Your task to perform on an android device: toggle location history Image 0: 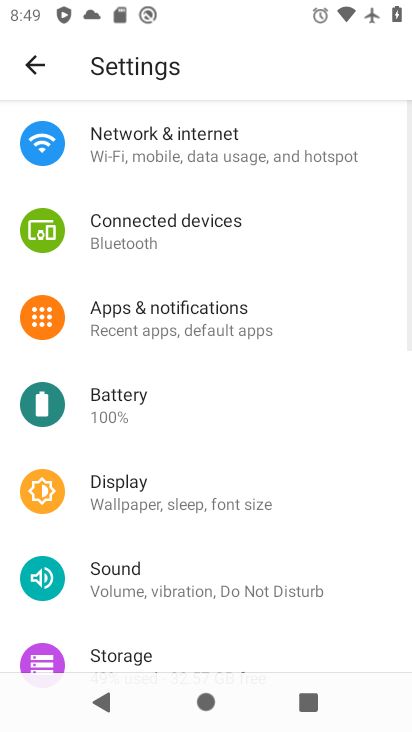
Step 0: press home button
Your task to perform on an android device: toggle location history Image 1: 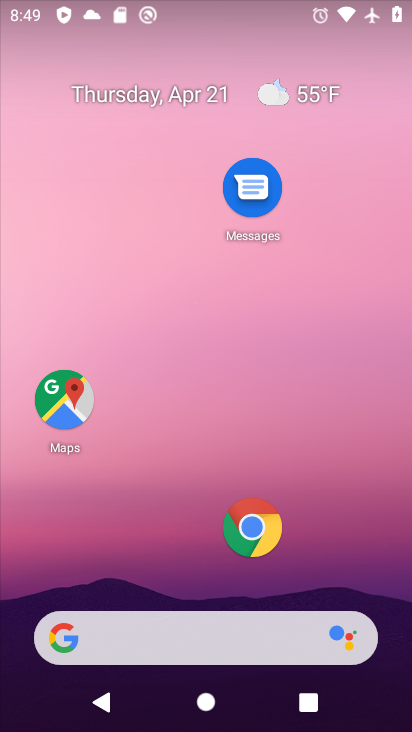
Step 1: drag from (159, 634) to (267, 26)
Your task to perform on an android device: toggle location history Image 2: 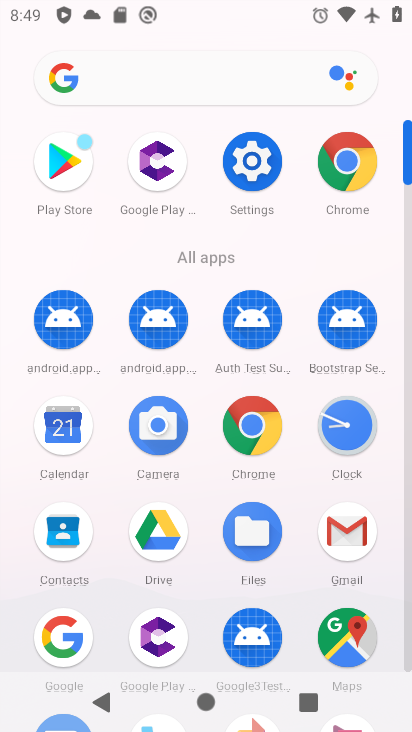
Step 2: click (253, 168)
Your task to perform on an android device: toggle location history Image 3: 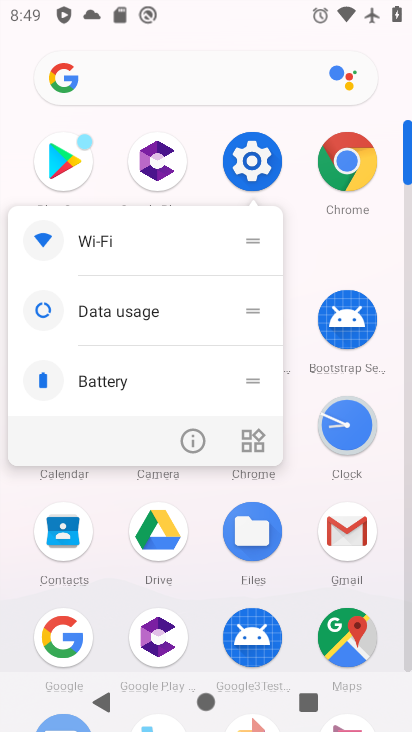
Step 3: click (252, 160)
Your task to perform on an android device: toggle location history Image 4: 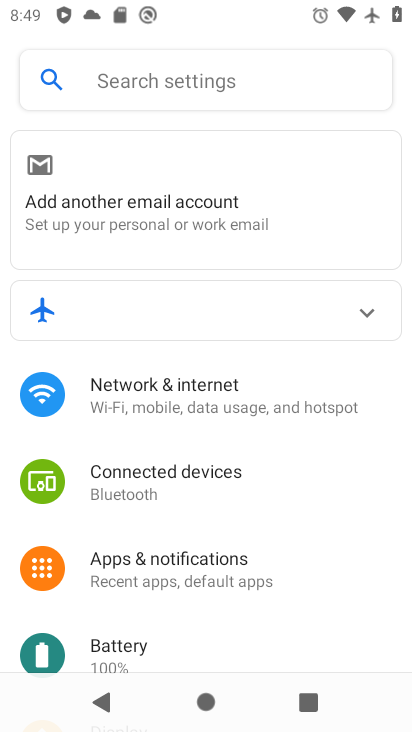
Step 4: drag from (211, 648) to (318, 121)
Your task to perform on an android device: toggle location history Image 5: 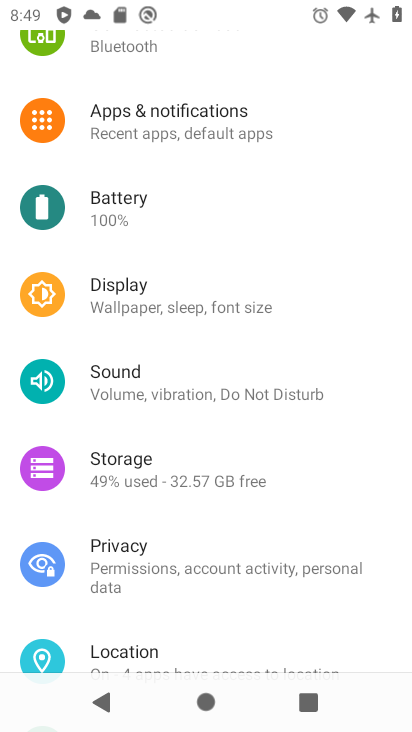
Step 5: drag from (165, 612) to (294, 74)
Your task to perform on an android device: toggle location history Image 6: 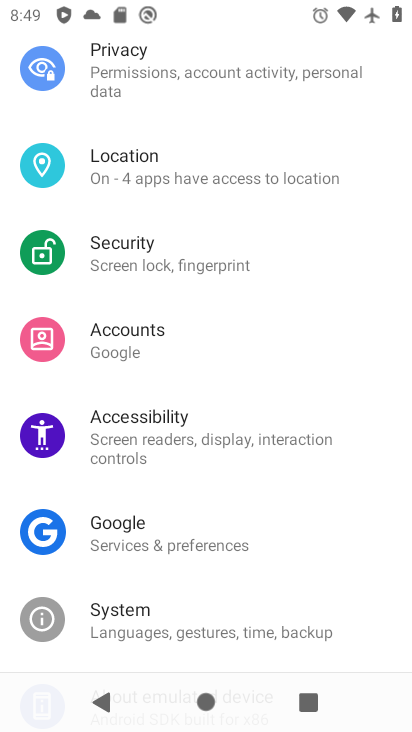
Step 6: click (138, 155)
Your task to perform on an android device: toggle location history Image 7: 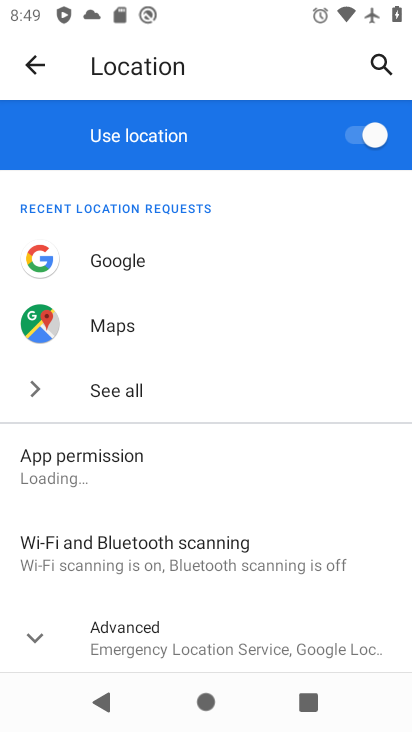
Step 7: drag from (192, 525) to (303, 151)
Your task to perform on an android device: toggle location history Image 8: 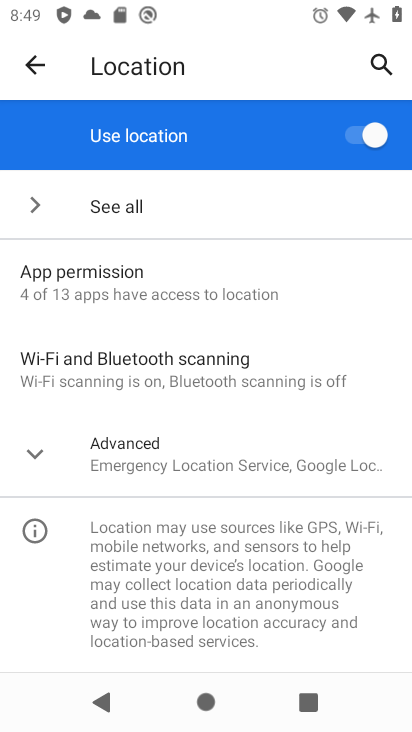
Step 8: click (110, 449)
Your task to perform on an android device: toggle location history Image 9: 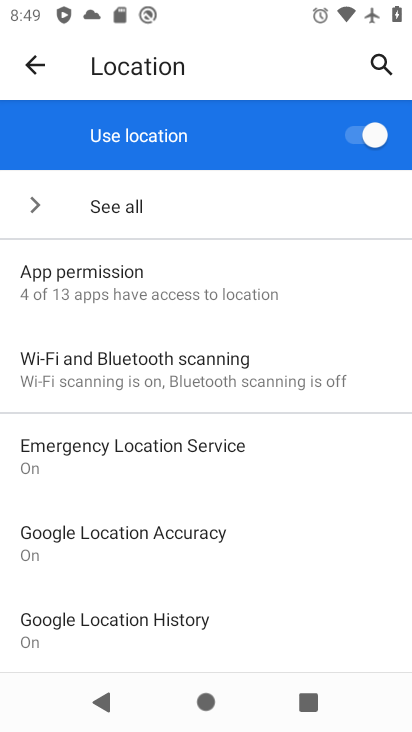
Step 9: drag from (206, 605) to (262, 323)
Your task to perform on an android device: toggle location history Image 10: 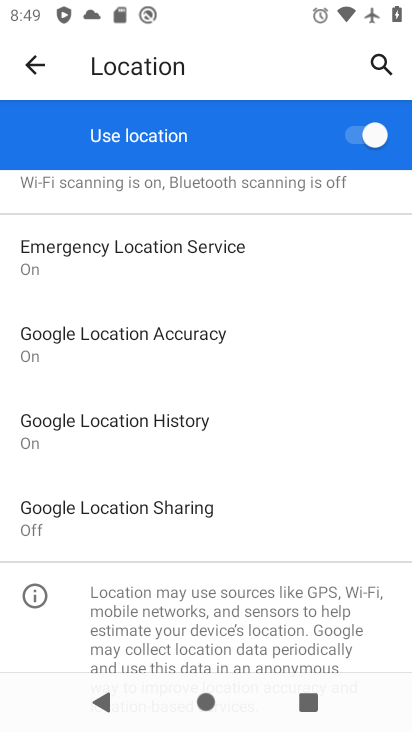
Step 10: click (118, 419)
Your task to perform on an android device: toggle location history Image 11: 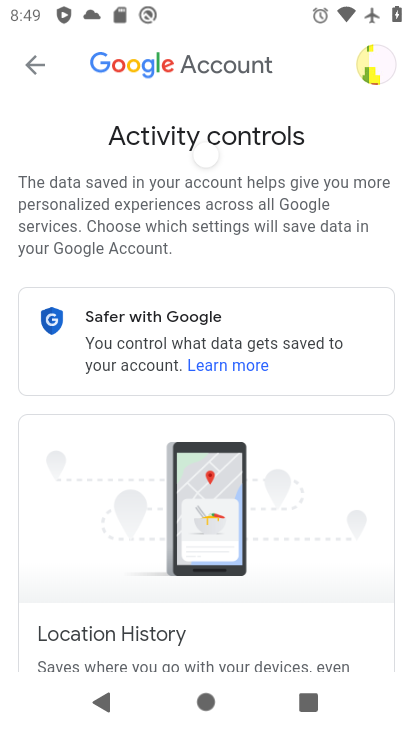
Step 11: drag from (211, 606) to (326, 178)
Your task to perform on an android device: toggle location history Image 12: 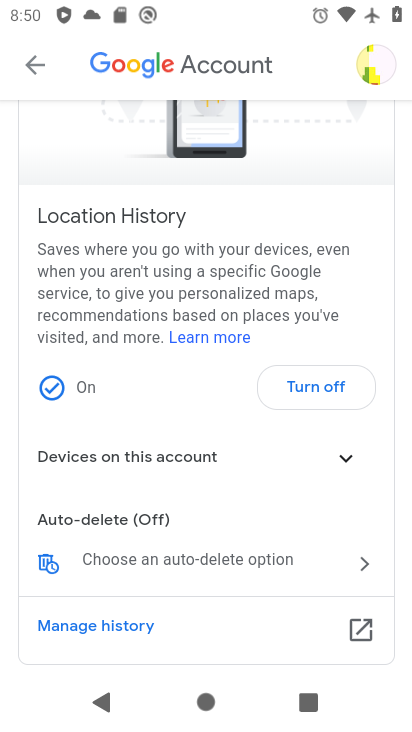
Step 12: click (302, 392)
Your task to perform on an android device: toggle location history Image 13: 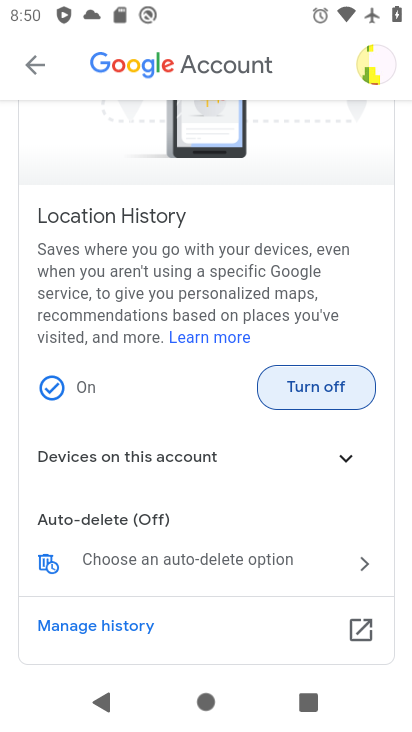
Step 13: click (318, 388)
Your task to perform on an android device: toggle location history Image 14: 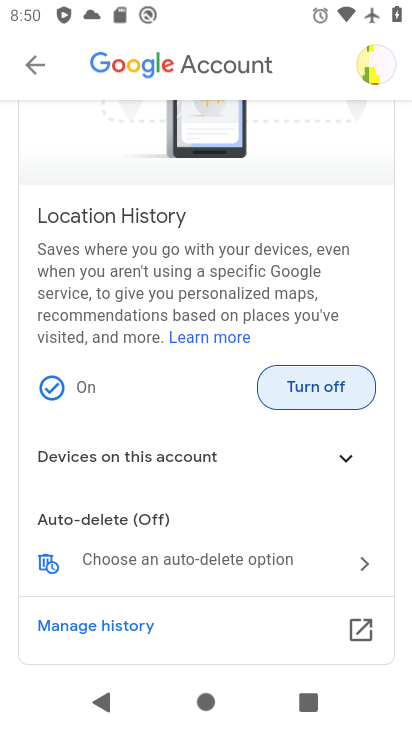
Step 14: click (306, 384)
Your task to perform on an android device: toggle location history Image 15: 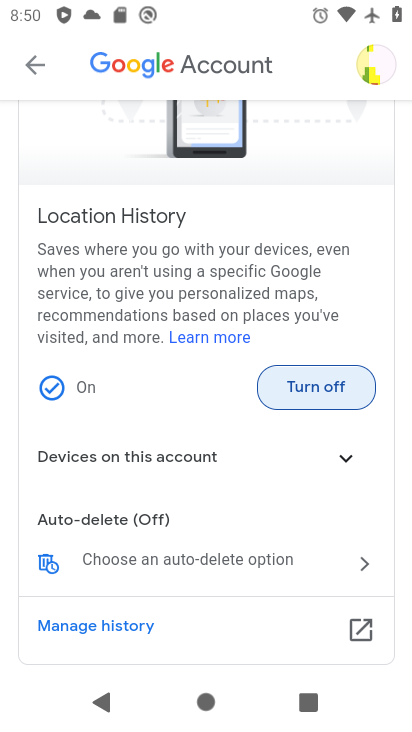
Step 15: click (318, 383)
Your task to perform on an android device: toggle location history Image 16: 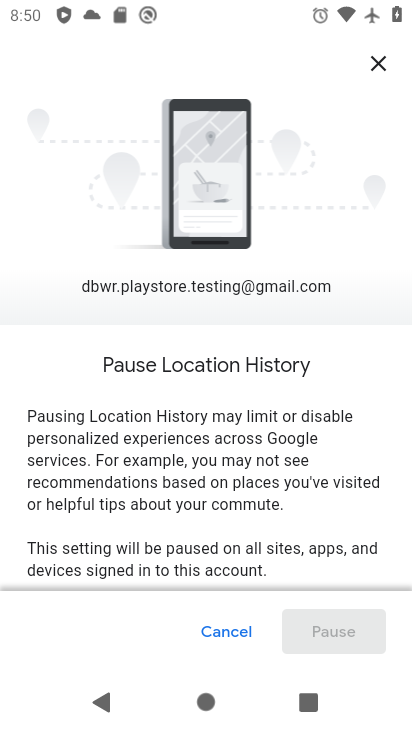
Step 16: drag from (179, 531) to (333, 69)
Your task to perform on an android device: toggle location history Image 17: 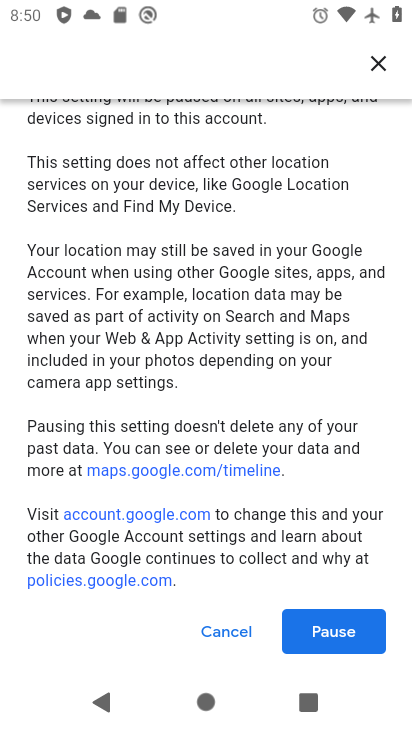
Step 17: drag from (251, 540) to (353, 157)
Your task to perform on an android device: toggle location history Image 18: 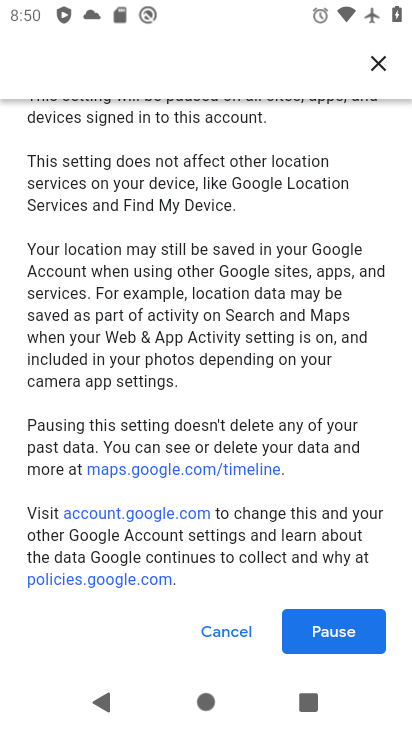
Step 18: click (337, 632)
Your task to perform on an android device: toggle location history Image 19: 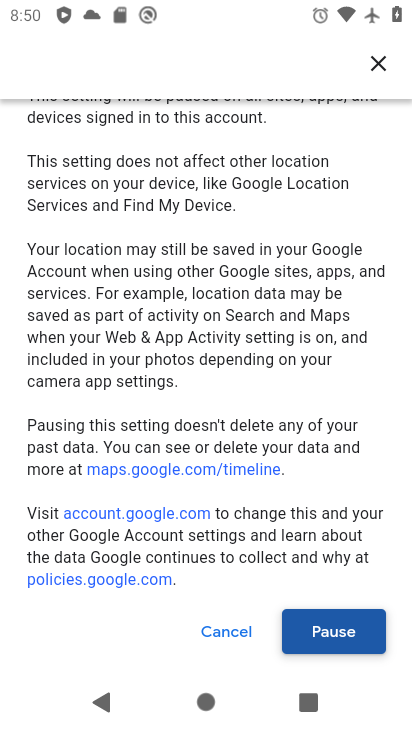
Step 19: click (328, 631)
Your task to perform on an android device: toggle location history Image 20: 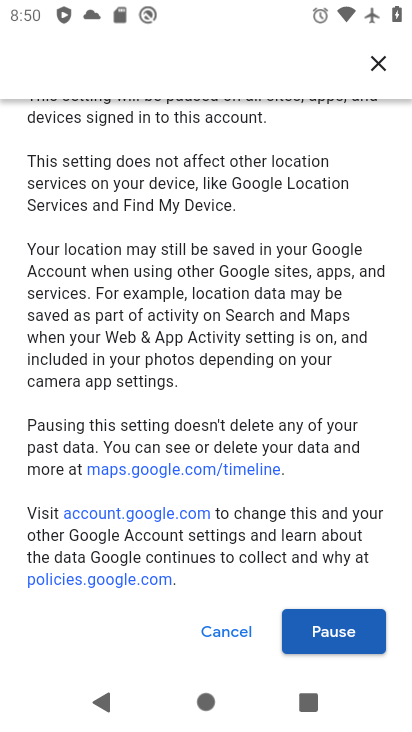
Step 20: click (337, 641)
Your task to perform on an android device: toggle location history Image 21: 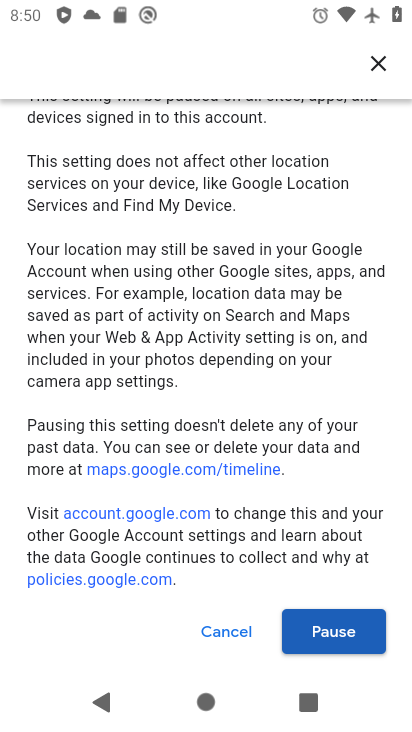
Step 21: click (324, 638)
Your task to perform on an android device: toggle location history Image 22: 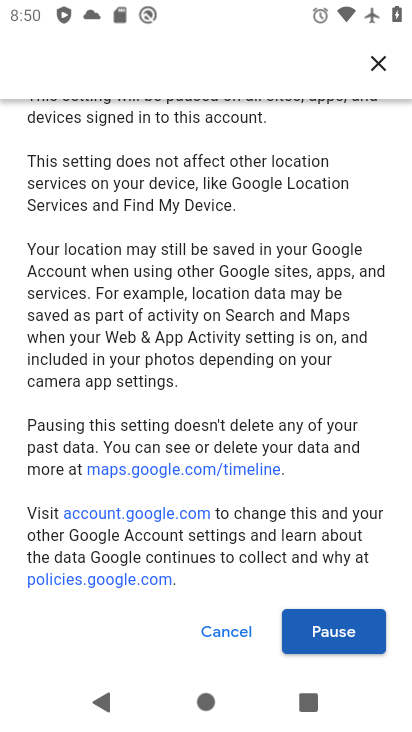
Step 22: click (336, 630)
Your task to perform on an android device: toggle location history Image 23: 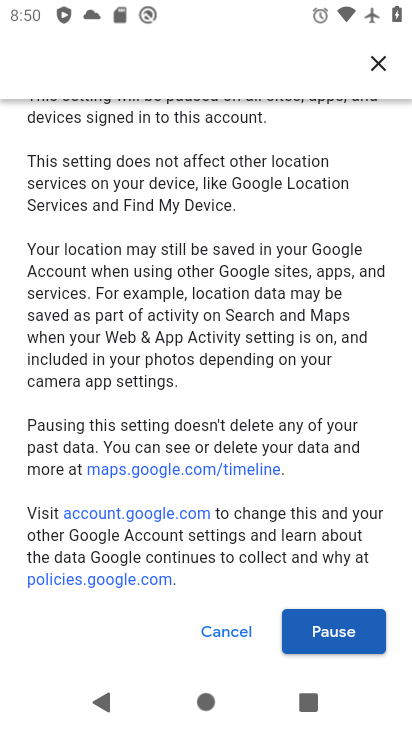
Step 23: click (332, 635)
Your task to perform on an android device: toggle location history Image 24: 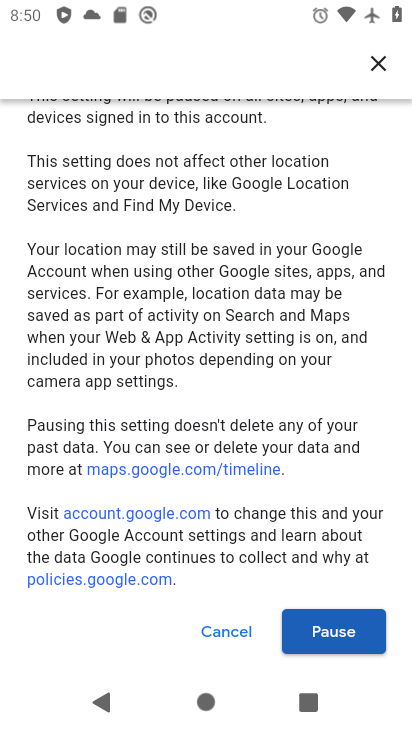
Step 24: click (331, 631)
Your task to perform on an android device: toggle location history Image 25: 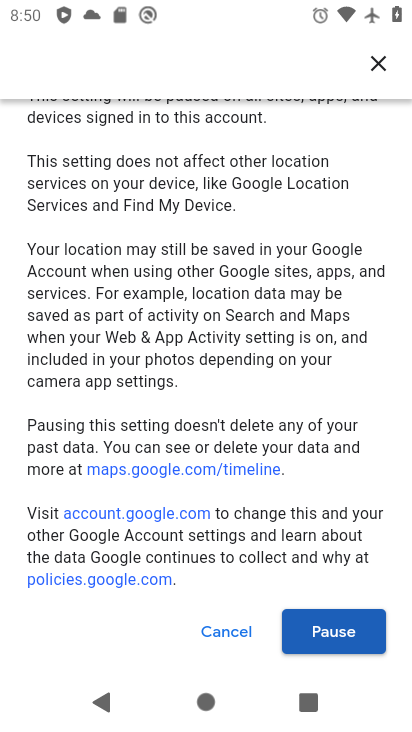
Step 25: click (330, 632)
Your task to perform on an android device: toggle location history Image 26: 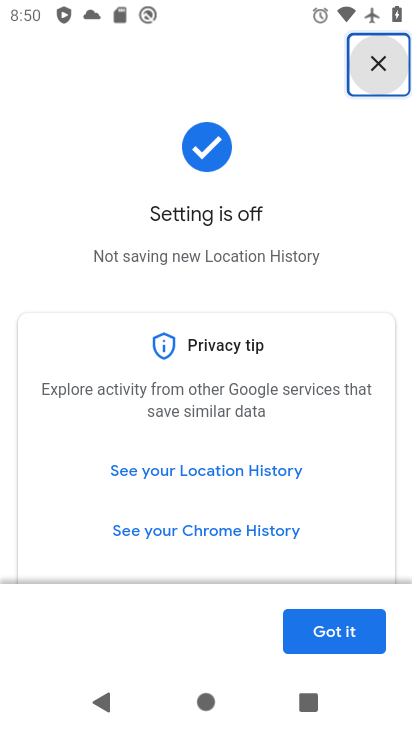
Step 26: click (322, 636)
Your task to perform on an android device: toggle location history Image 27: 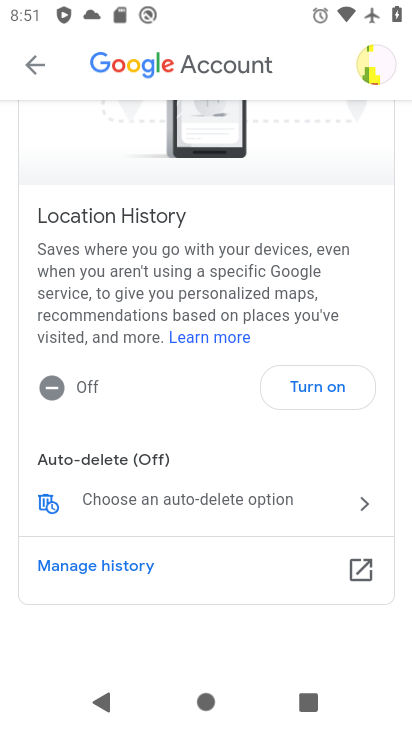
Step 27: task complete